Your task to perform on an android device: turn notification dots on Image 0: 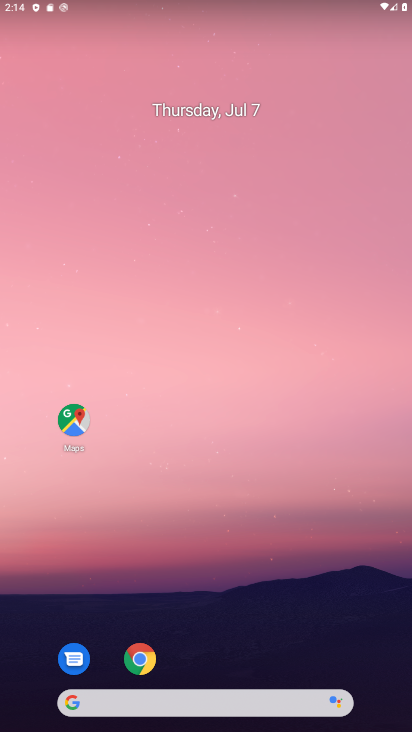
Step 0: drag from (226, 638) to (134, 103)
Your task to perform on an android device: turn notification dots on Image 1: 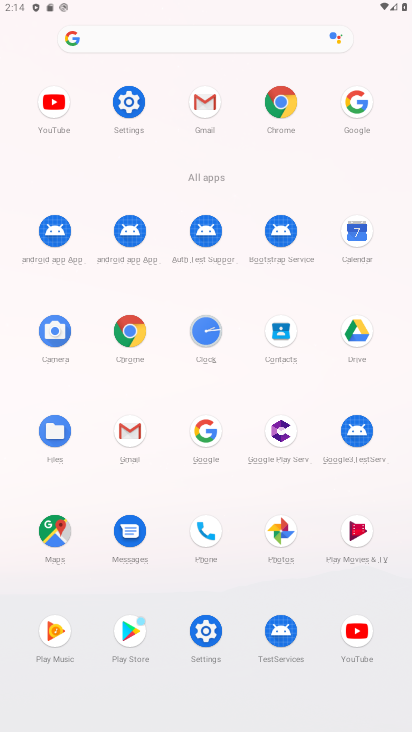
Step 1: click (130, 100)
Your task to perform on an android device: turn notification dots on Image 2: 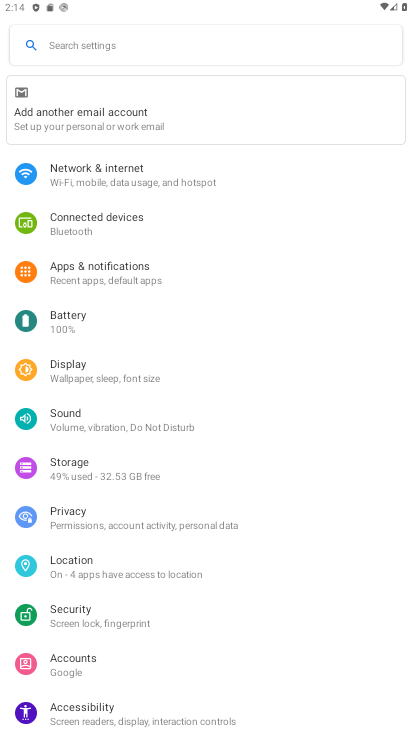
Step 2: click (114, 265)
Your task to perform on an android device: turn notification dots on Image 3: 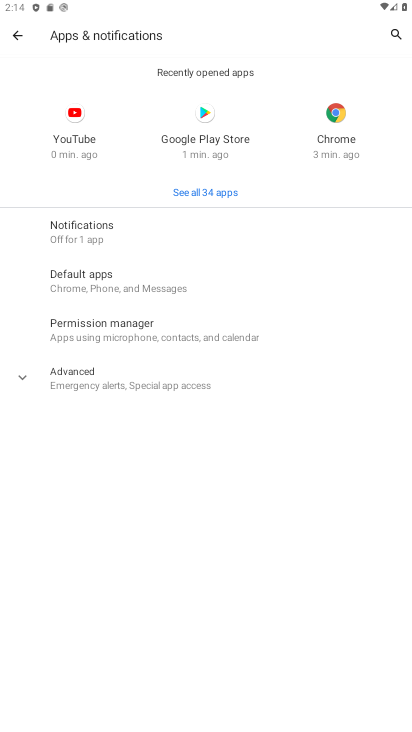
Step 3: click (69, 232)
Your task to perform on an android device: turn notification dots on Image 4: 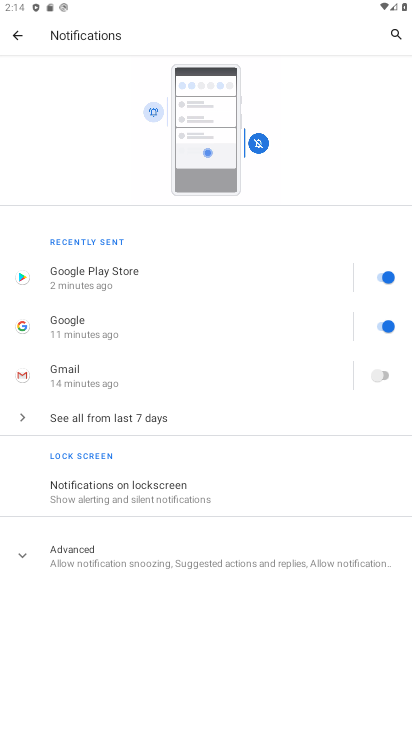
Step 4: click (32, 556)
Your task to perform on an android device: turn notification dots on Image 5: 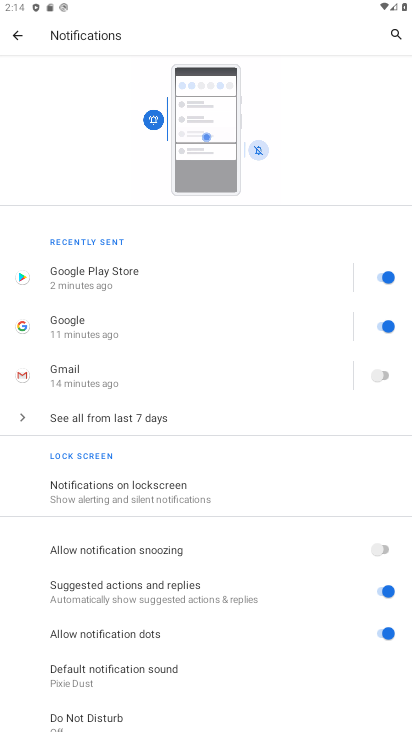
Step 5: task complete